Your task to perform on an android device: Turn off the flashlight Image 0: 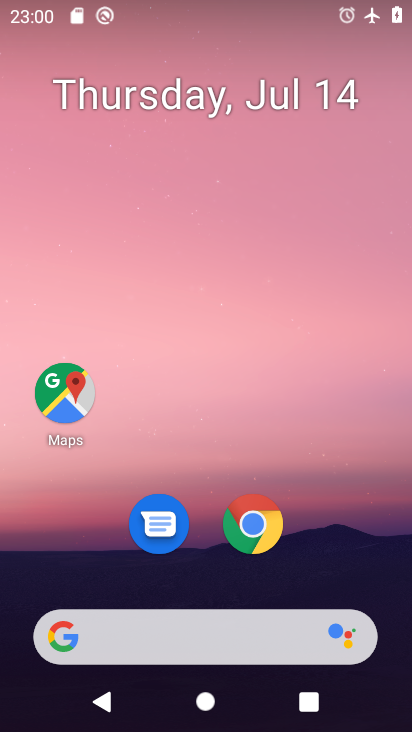
Step 0: drag from (336, 569) to (317, 10)
Your task to perform on an android device: Turn off the flashlight Image 1: 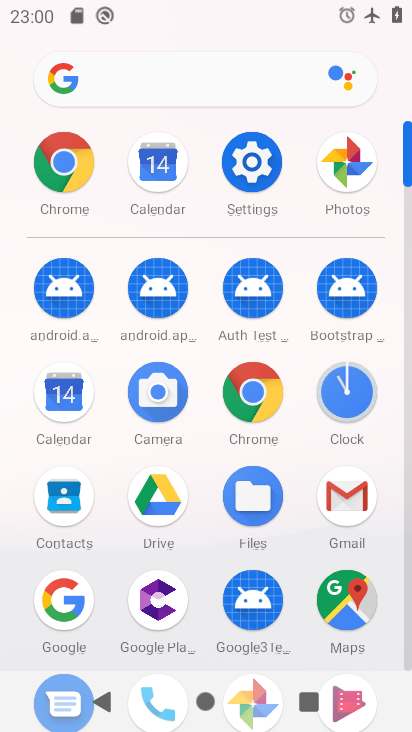
Step 1: click (255, 152)
Your task to perform on an android device: Turn off the flashlight Image 2: 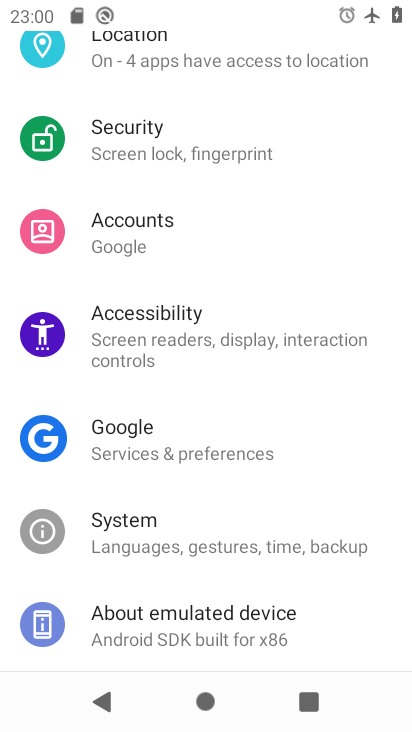
Step 2: drag from (242, 230) to (248, 618)
Your task to perform on an android device: Turn off the flashlight Image 3: 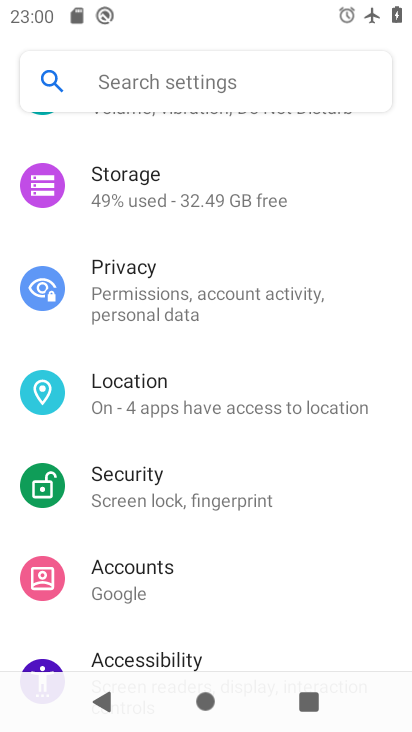
Step 3: drag from (260, 254) to (248, 676)
Your task to perform on an android device: Turn off the flashlight Image 4: 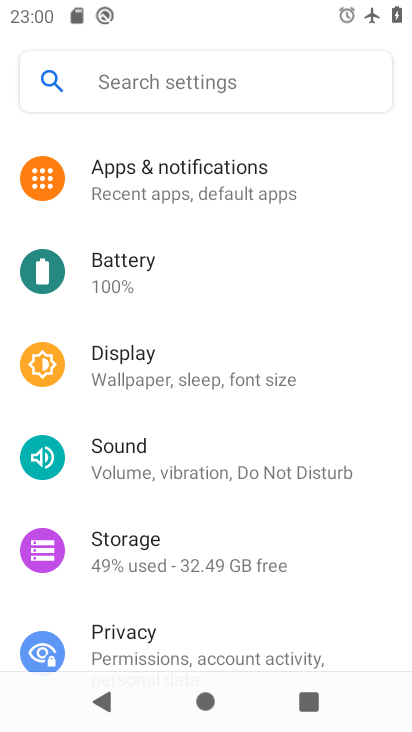
Step 4: drag from (244, 222) to (254, 631)
Your task to perform on an android device: Turn off the flashlight Image 5: 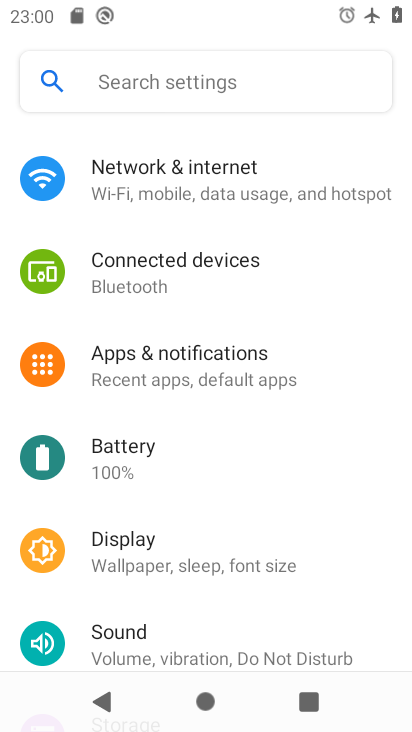
Step 5: drag from (237, 266) to (216, 480)
Your task to perform on an android device: Turn off the flashlight Image 6: 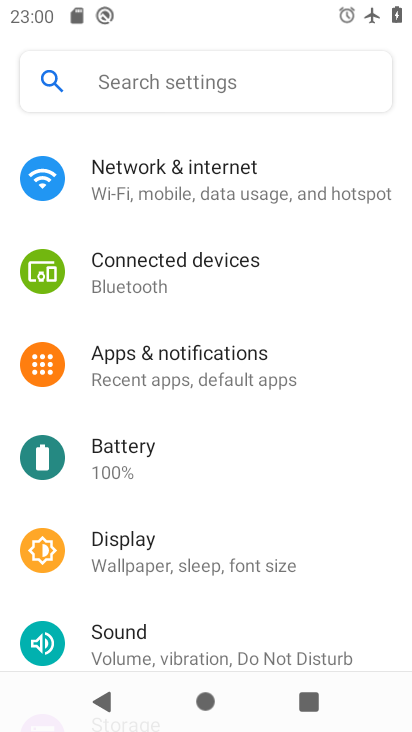
Step 6: click (278, 68)
Your task to perform on an android device: Turn off the flashlight Image 7: 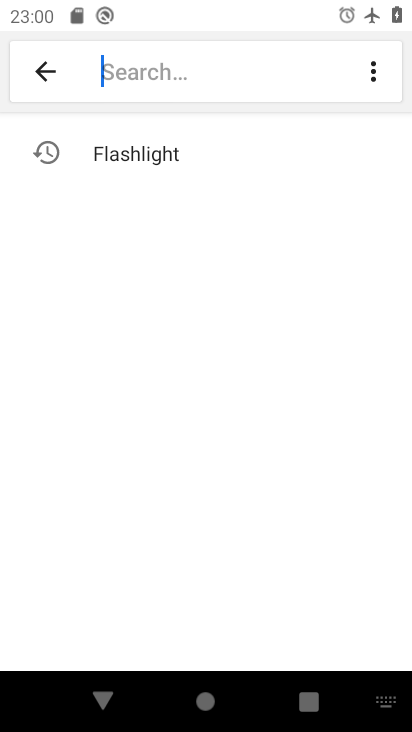
Step 7: click (159, 149)
Your task to perform on an android device: Turn off the flashlight Image 8: 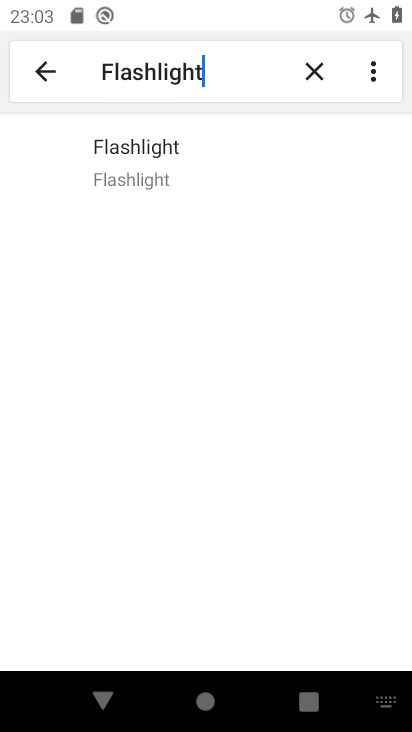
Step 8: task complete